Your task to perform on an android device: open a new tab in the chrome app Image 0: 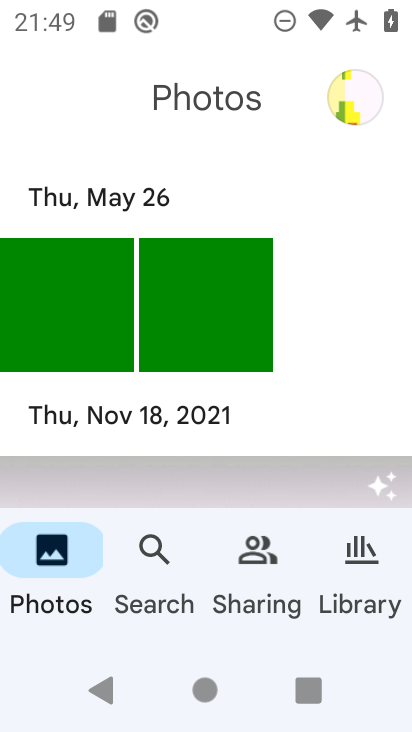
Step 0: press home button
Your task to perform on an android device: open a new tab in the chrome app Image 1: 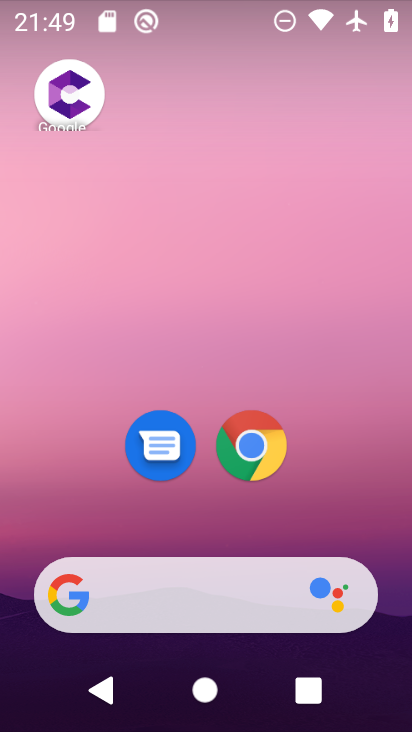
Step 1: click (252, 444)
Your task to perform on an android device: open a new tab in the chrome app Image 2: 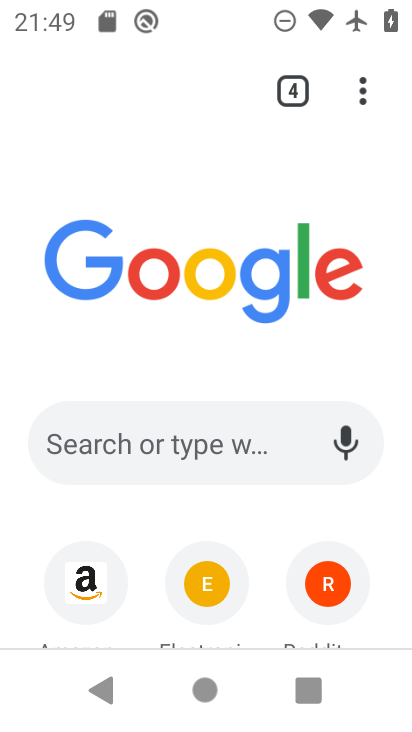
Step 2: click (290, 93)
Your task to perform on an android device: open a new tab in the chrome app Image 3: 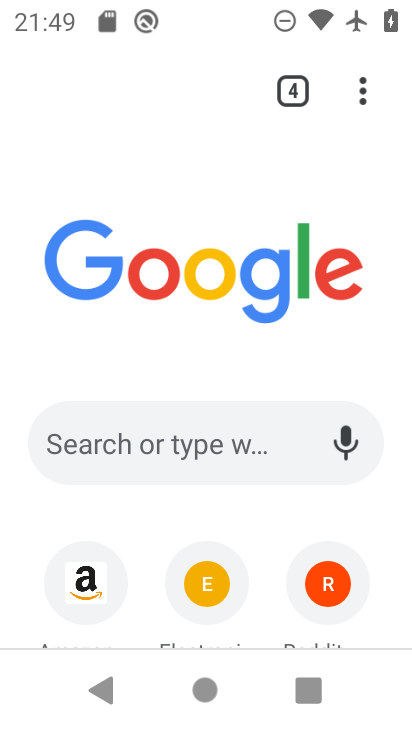
Step 3: click (296, 97)
Your task to perform on an android device: open a new tab in the chrome app Image 4: 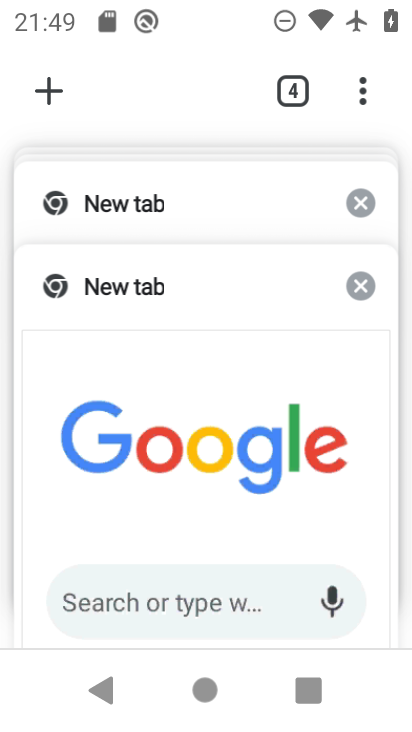
Step 4: click (49, 92)
Your task to perform on an android device: open a new tab in the chrome app Image 5: 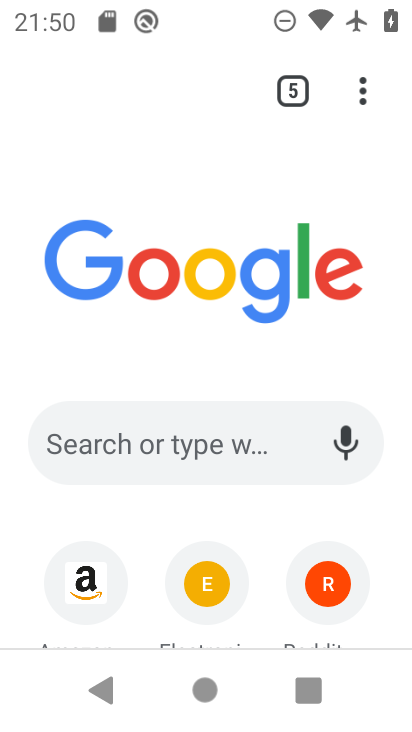
Step 5: task complete